Your task to perform on an android device: Open display settings Image 0: 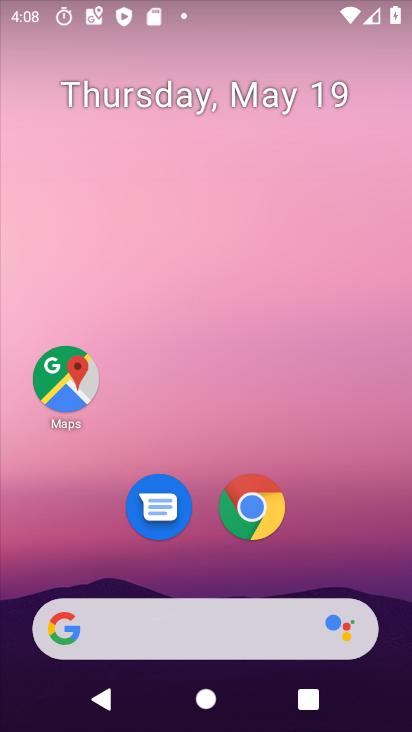
Step 0: click (381, 391)
Your task to perform on an android device: Open display settings Image 1: 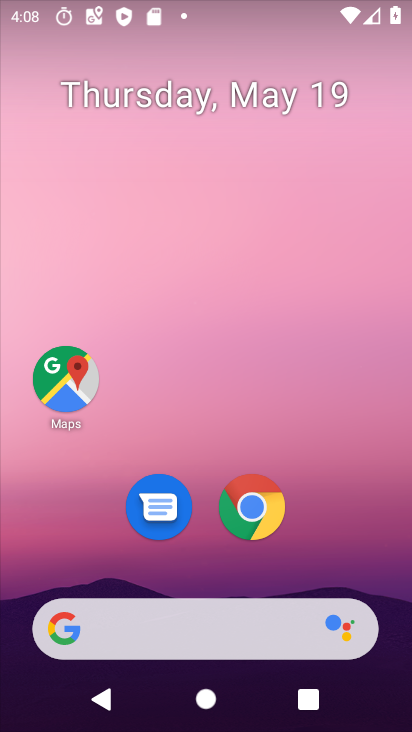
Step 1: drag from (394, 669) to (344, 259)
Your task to perform on an android device: Open display settings Image 2: 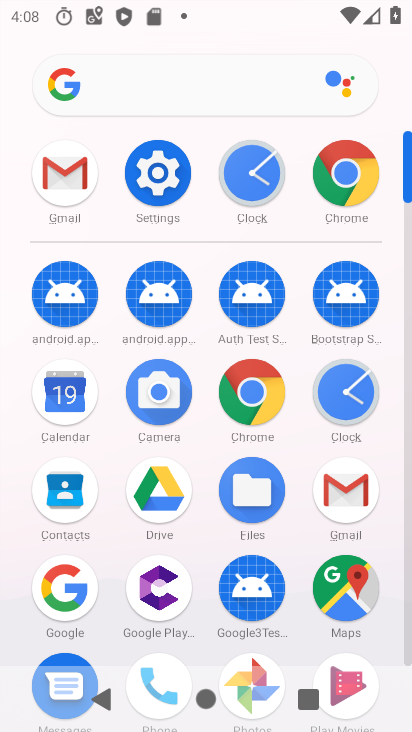
Step 2: click (151, 167)
Your task to perform on an android device: Open display settings Image 3: 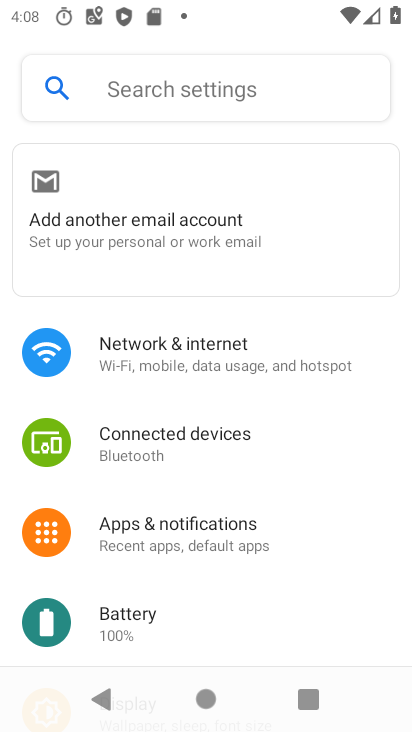
Step 3: drag from (281, 613) to (313, 274)
Your task to perform on an android device: Open display settings Image 4: 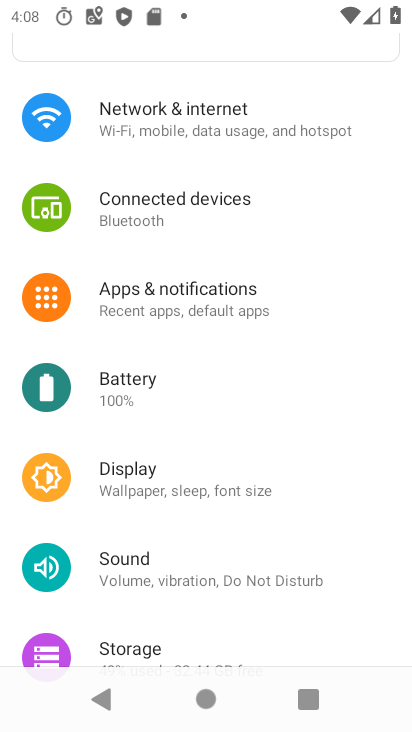
Step 4: click (147, 483)
Your task to perform on an android device: Open display settings Image 5: 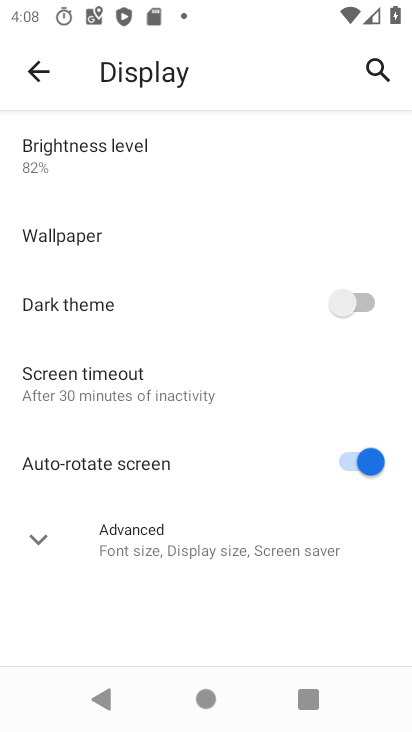
Step 5: task complete